Your task to perform on an android device: Find coffee shops on Maps Image 0: 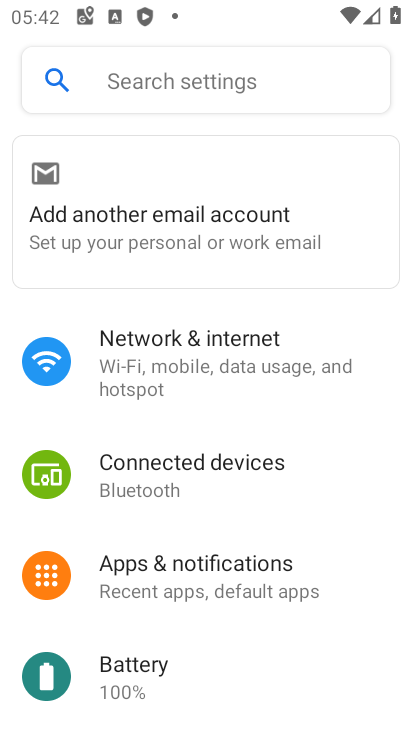
Step 0: press home button
Your task to perform on an android device: Find coffee shops on Maps Image 1: 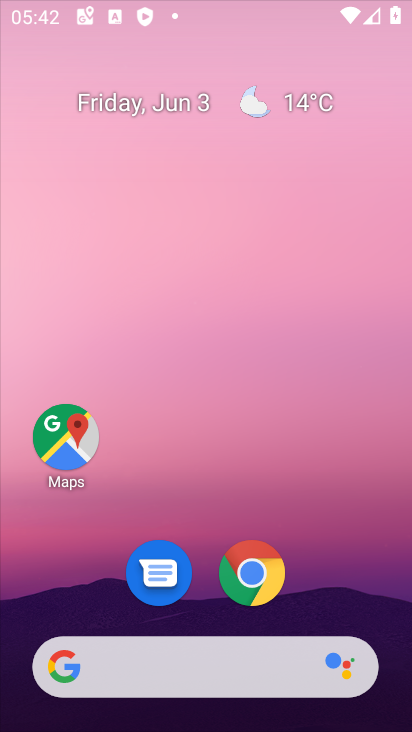
Step 1: drag from (247, 689) to (160, 23)
Your task to perform on an android device: Find coffee shops on Maps Image 2: 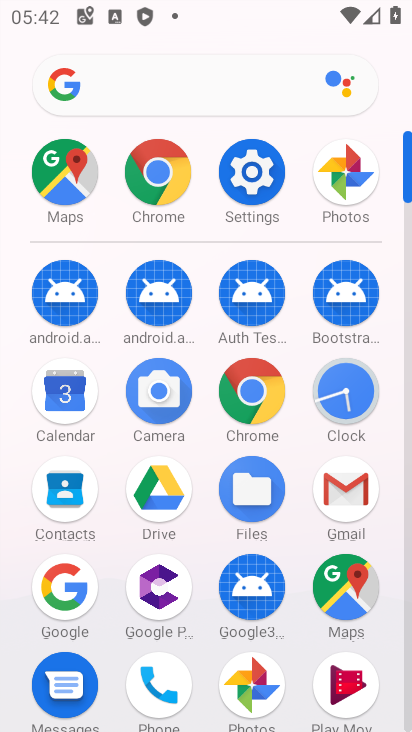
Step 2: click (368, 599)
Your task to perform on an android device: Find coffee shops on Maps Image 3: 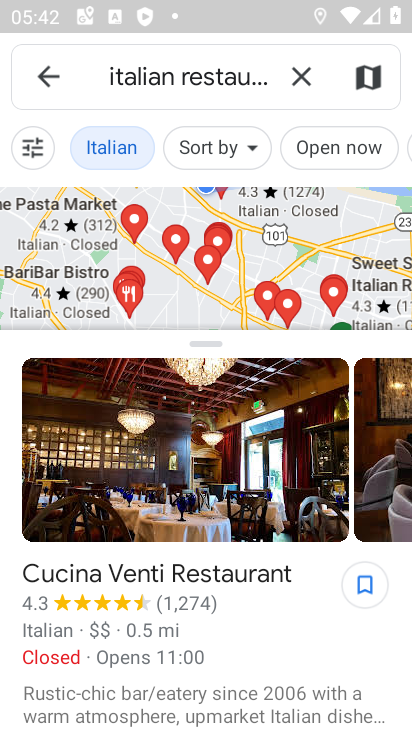
Step 3: click (309, 67)
Your task to perform on an android device: Find coffee shops on Maps Image 4: 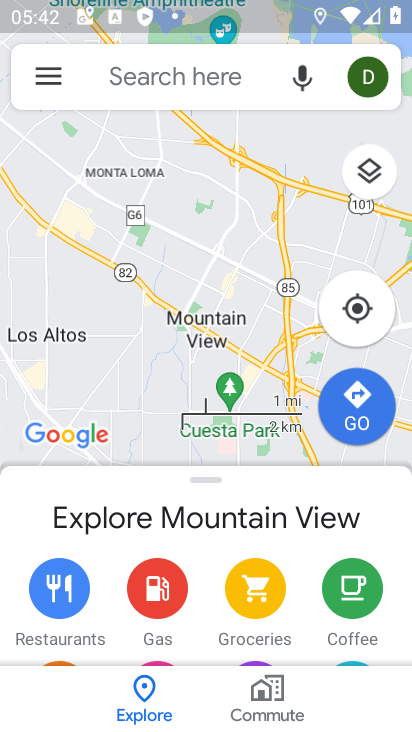
Step 4: click (185, 61)
Your task to perform on an android device: Find coffee shops on Maps Image 5: 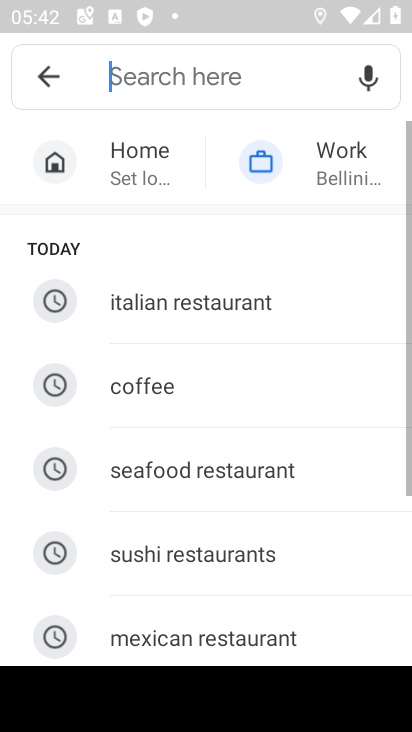
Step 5: drag from (185, 597) to (191, 234)
Your task to perform on an android device: Find coffee shops on Maps Image 6: 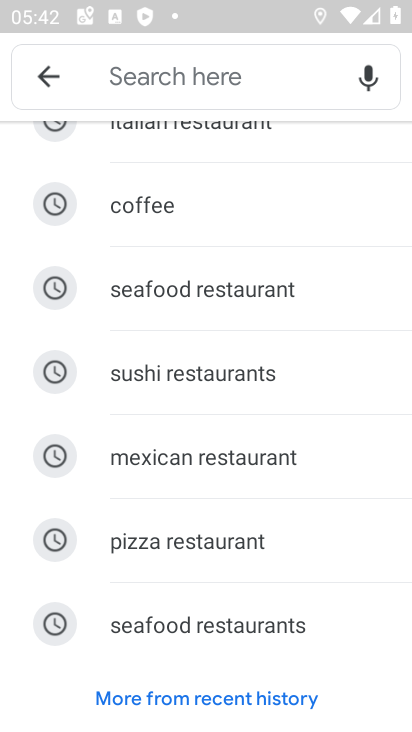
Step 6: click (232, 82)
Your task to perform on an android device: Find coffee shops on Maps Image 7: 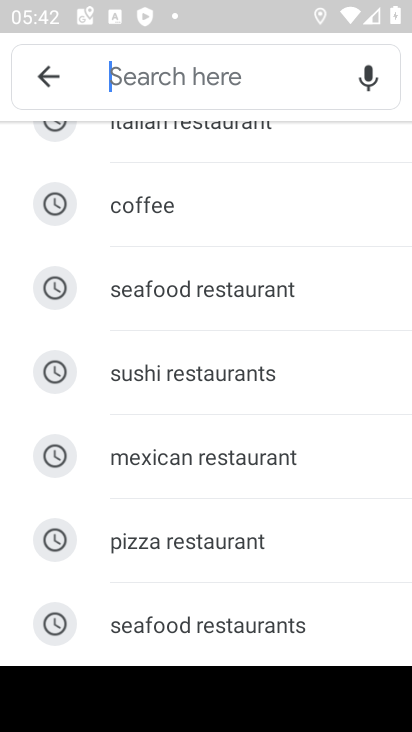
Step 7: type "coffee shops"
Your task to perform on an android device: Find coffee shops on Maps Image 8: 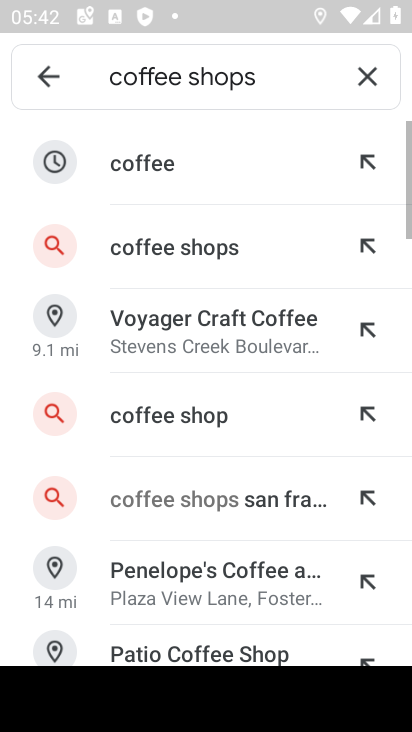
Step 8: click (250, 248)
Your task to perform on an android device: Find coffee shops on Maps Image 9: 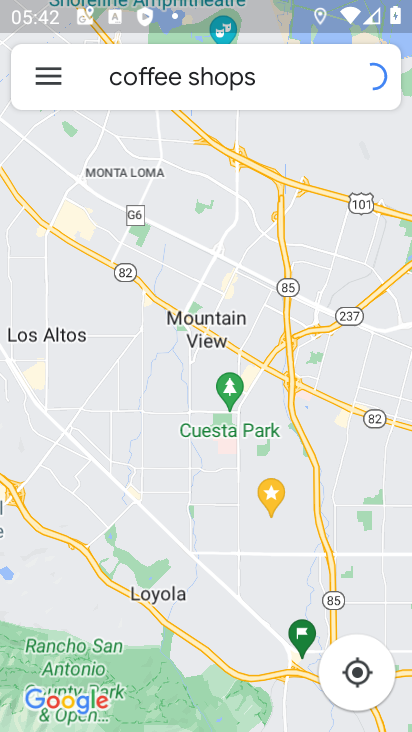
Step 9: task complete